Your task to perform on an android device: Open Google Maps and go to "Timeline" Image 0: 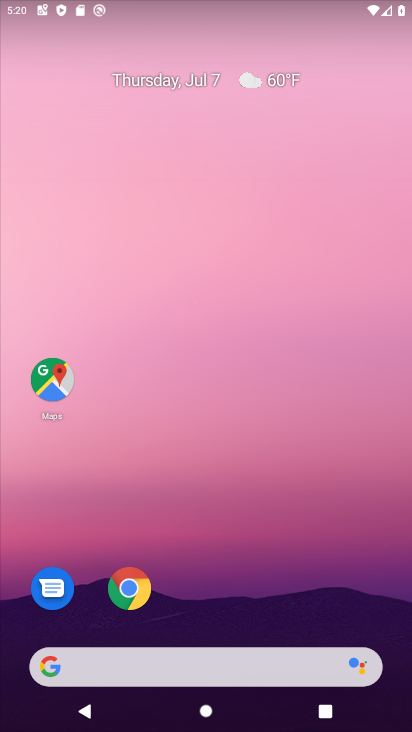
Step 0: drag from (219, 496) to (245, 57)
Your task to perform on an android device: Open Google Maps and go to "Timeline" Image 1: 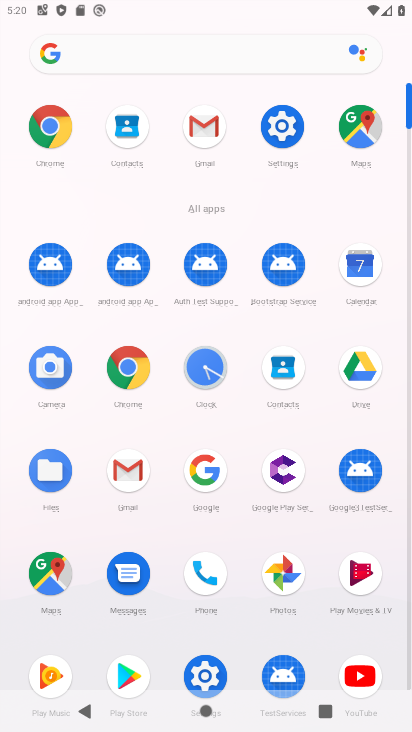
Step 1: click (280, 121)
Your task to perform on an android device: Open Google Maps and go to "Timeline" Image 2: 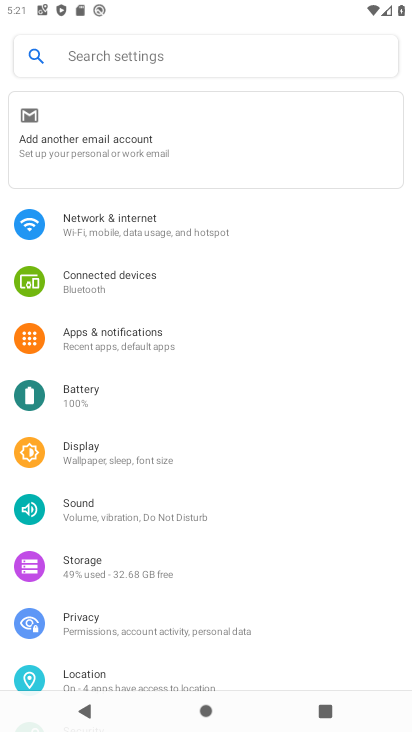
Step 2: press back button
Your task to perform on an android device: Open Google Maps and go to "Timeline" Image 3: 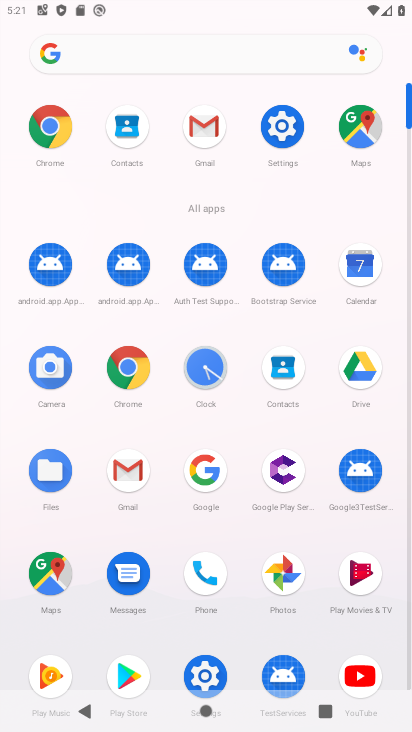
Step 3: click (351, 125)
Your task to perform on an android device: Open Google Maps and go to "Timeline" Image 4: 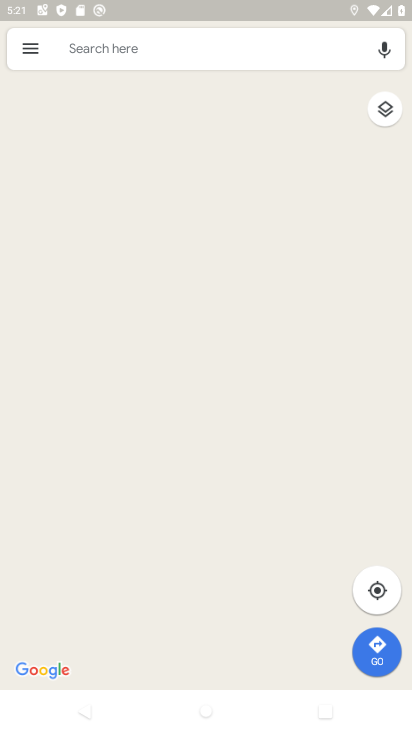
Step 4: click (34, 57)
Your task to perform on an android device: Open Google Maps and go to "Timeline" Image 5: 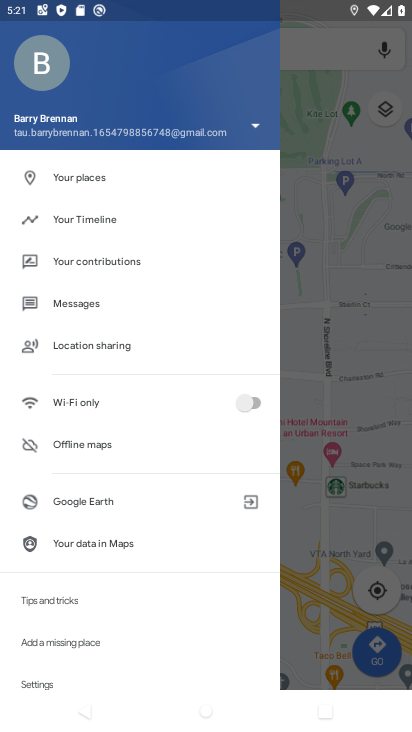
Step 5: click (86, 215)
Your task to perform on an android device: Open Google Maps and go to "Timeline" Image 6: 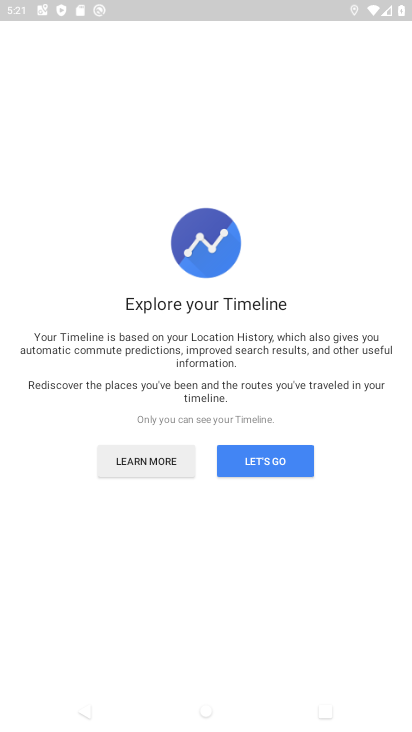
Step 6: click (263, 466)
Your task to perform on an android device: Open Google Maps and go to "Timeline" Image 7: 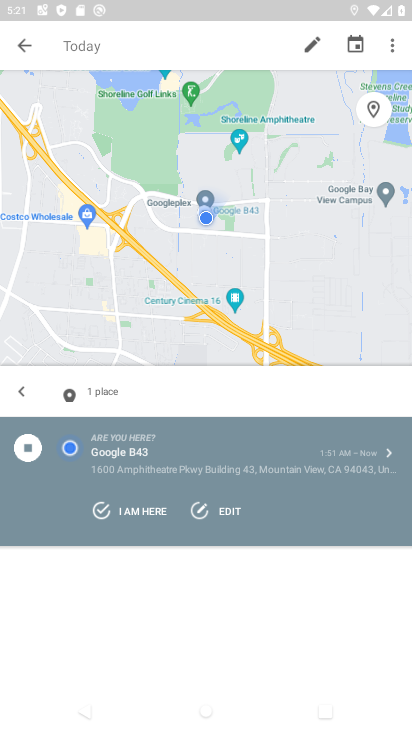
Step 7: task complete